Your task to perform on an android device: Open Maps and search for coffee Image 0: 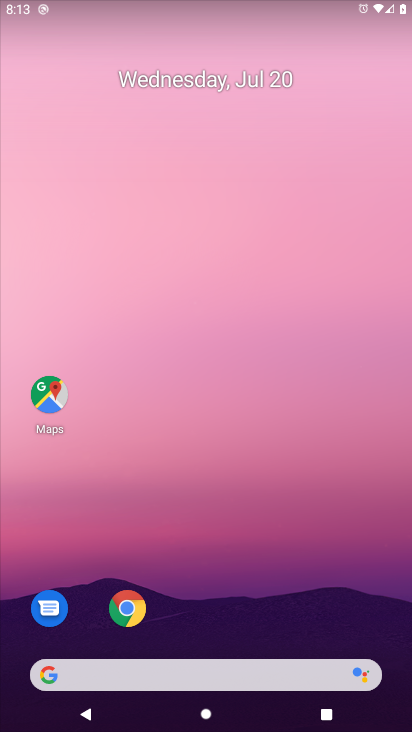
Step 0: click (37, 388)
Your task to perform on an android device: Open Maps and search for coffee Image 1: 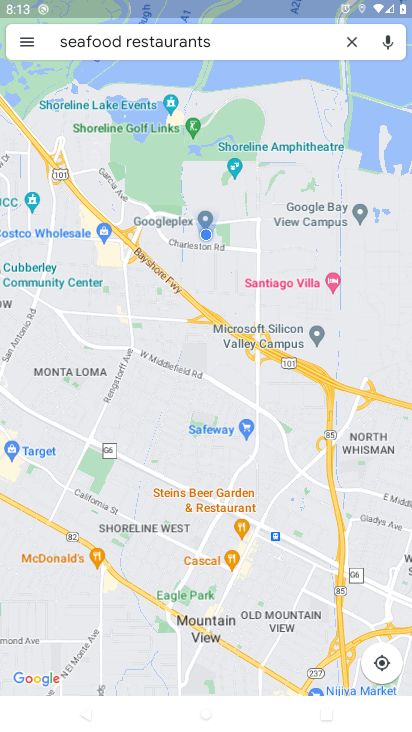
Step 1: click (351, 37)
Your task to perform on an android device: Open Maps and search for coffee Image 2: 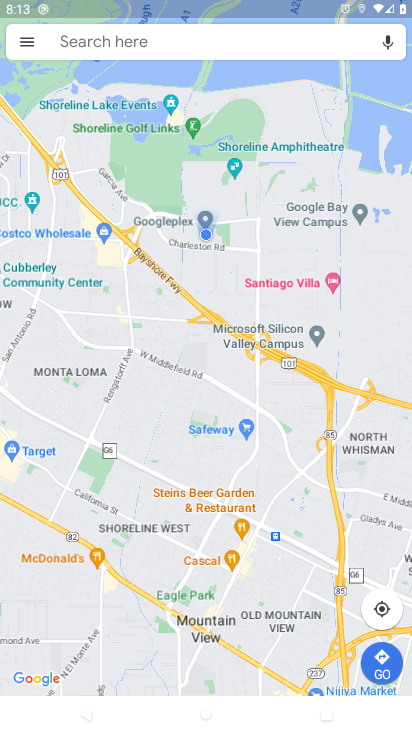
Step 2: click (214, 50)
Your task to perform on an android device: Open Maps and search for coffee Image 3: 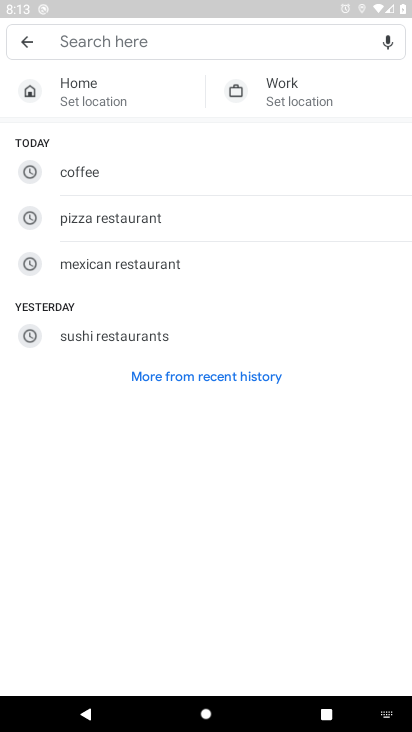
Step 3: type "coffee"
Your task to perform on an android device: Open Maps and search for coffee Image 4: 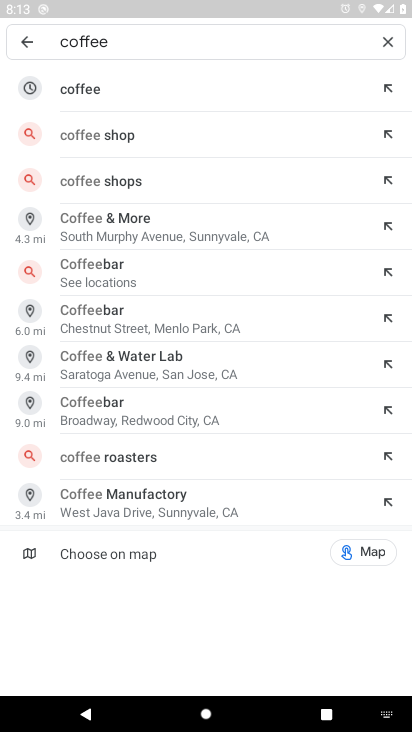
Step 4: click (79, 93)
Your task to perform on an android device: Open Maps and search for coffee Image 5: 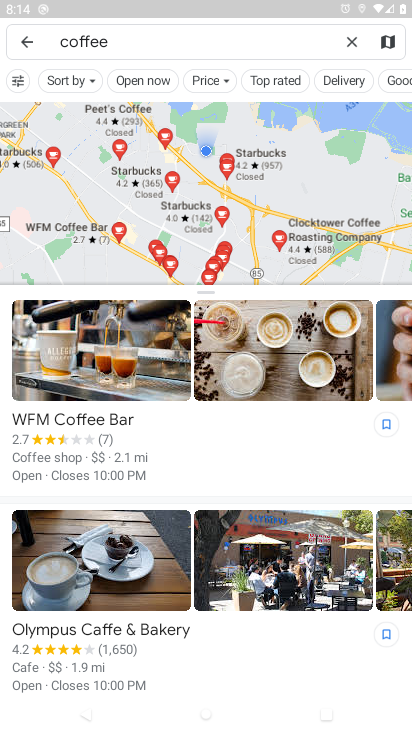
Step 5: task complete